Your task to perform on an android device: toggle airplane mode Image 0: 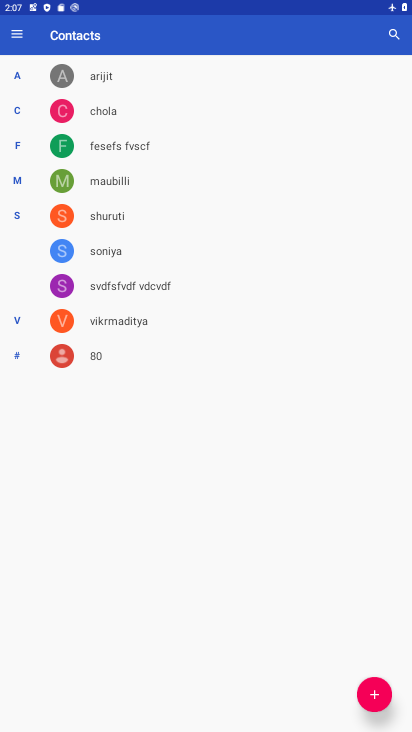
Step 0: press home button
Your task to perform on an android device: toggle airplane mode Image 1: 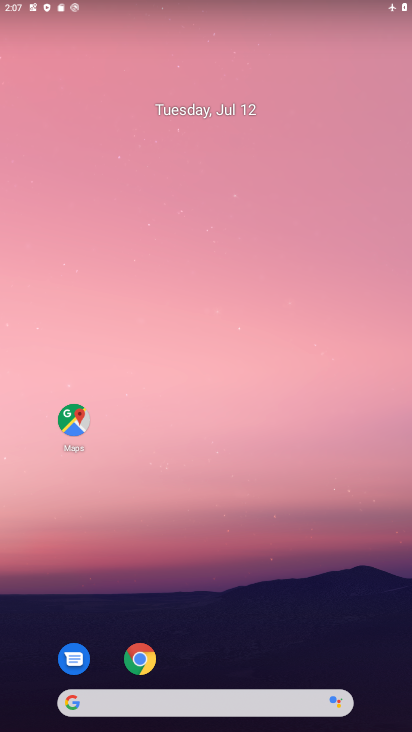
Step 1: drag from (227, 649) to (216, 217)
Your task to perform on an android device: toggle airplane mode Image 2: 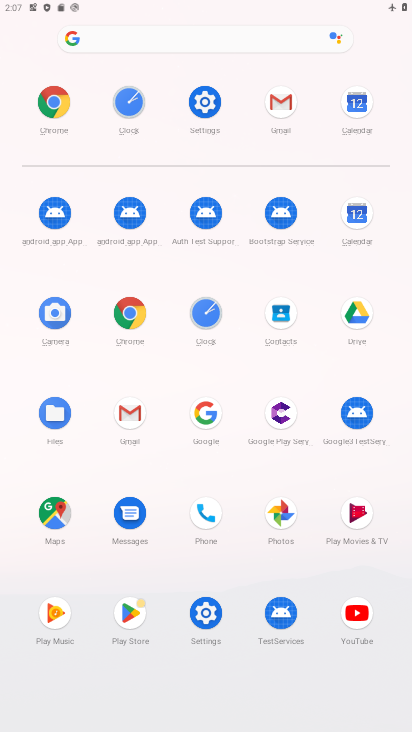
Step 2: click (207, 101)
Your task to perform on an android device: toggle airplane mode Image 3: 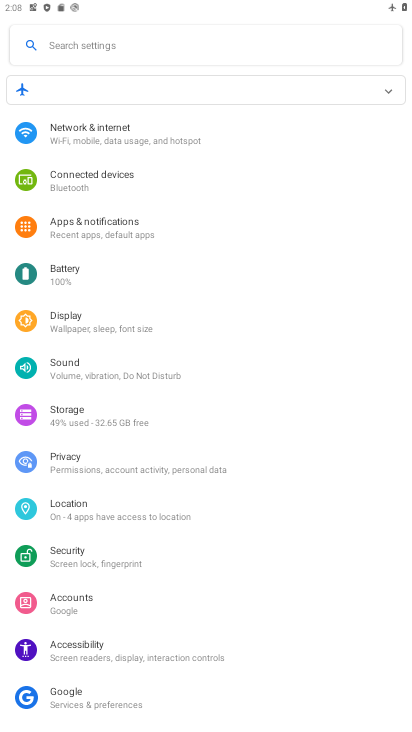
Step 3: click (112, 127)
Your task to perform on an android device: toggle airplane mode Image 4: 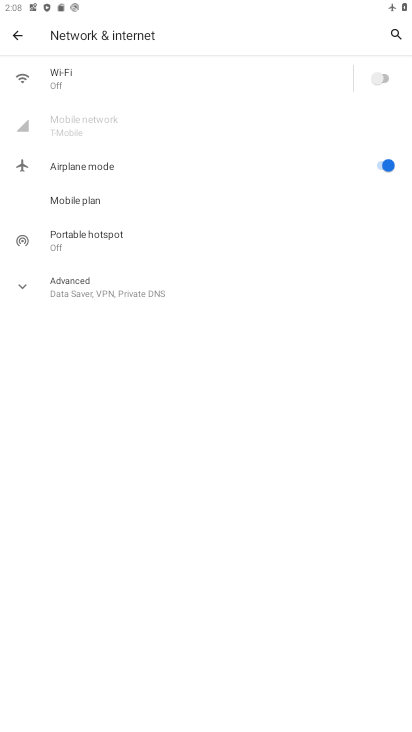
Step 4: click (383, 165)
Your task to perform on an android device: toggle airplane mode Image 5: 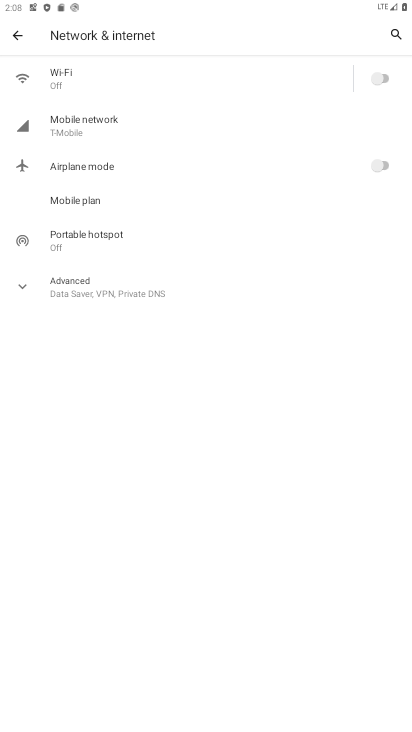
Step 5: task complete